Your task to perform on an android device: empty trash in google photos Image 0: 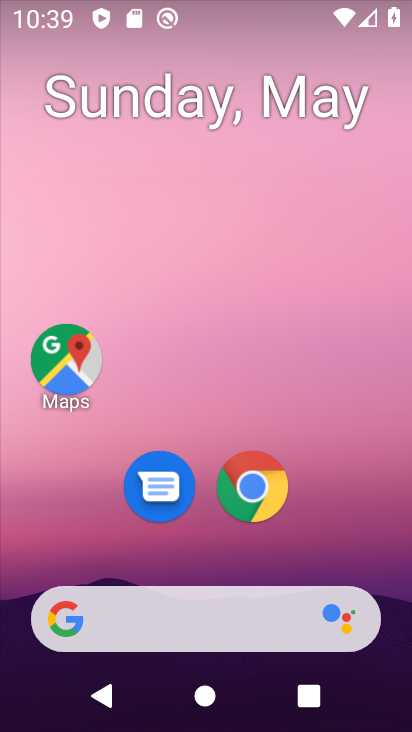
Step 0: drag from (411, 568) to (319, 159)
Your task to perform on an android device: empty trash in google photos Image 1: 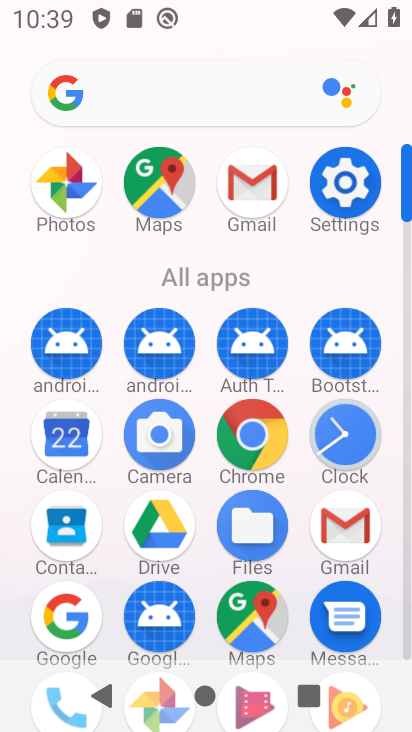
Step 1: click (55, 193)
Your task to perform on an android device: empty trash in google photos Image 2: 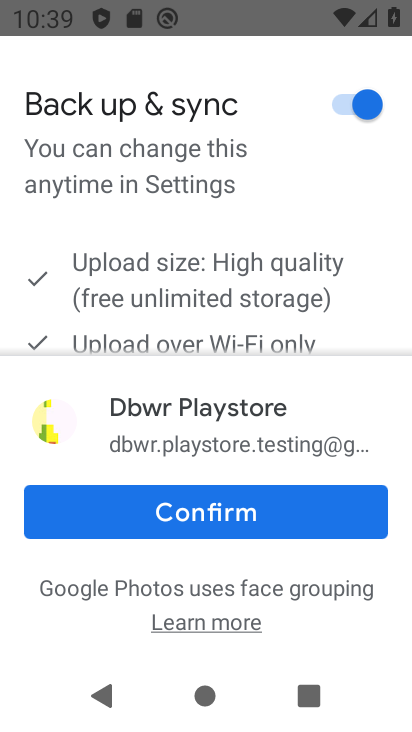
Step 2: click (354, 506)
Your task to perform on an android device: empty trash in google photos Image 3: 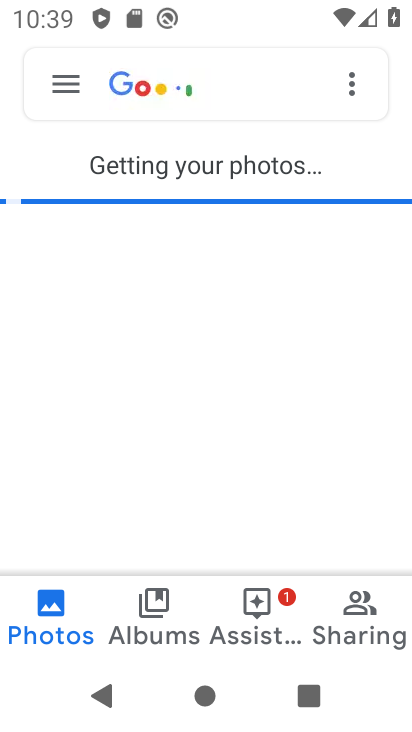
Step 3: click (58, 97)
Your task to perform on an android device: empty trash in google photos Image 4: 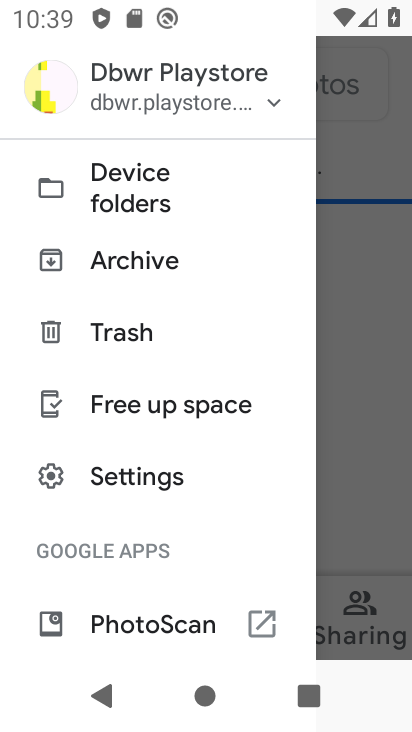
Step 4: click (167, 324)
Your task to perform on an android device: empty trash in google photos Image 5: 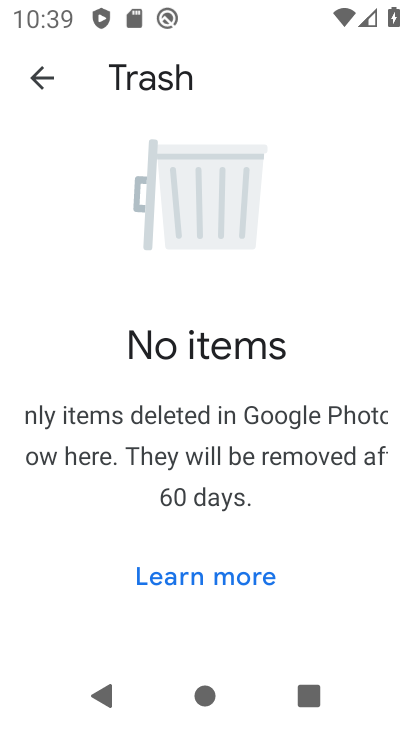
Step 5: task complete